Your task to perform on an android device: toggle pop-ups in chrome Image 0: 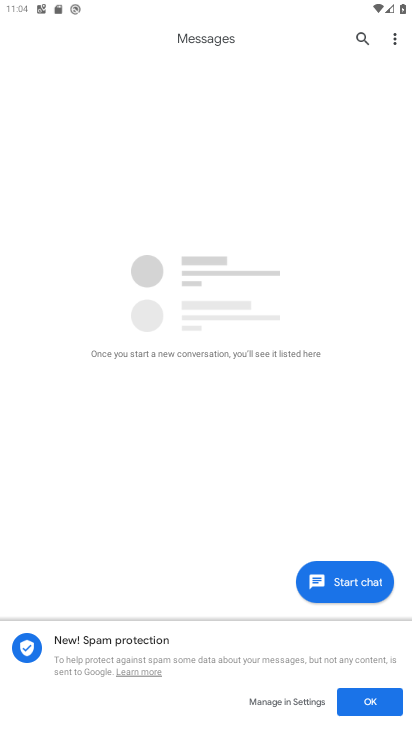
Step 0: press home button
Your task to perform on an android device: toggle pop-ups in chrome Image 1: 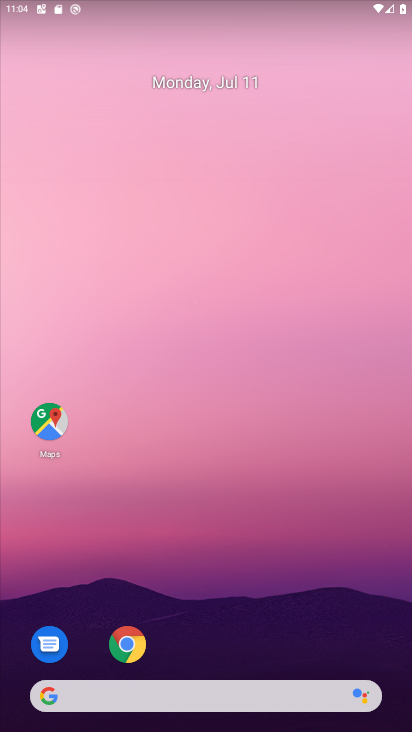
Step 1: click (129, 646)
Your task to perform on an android device: toggle pop-ups in chrome Image 2: 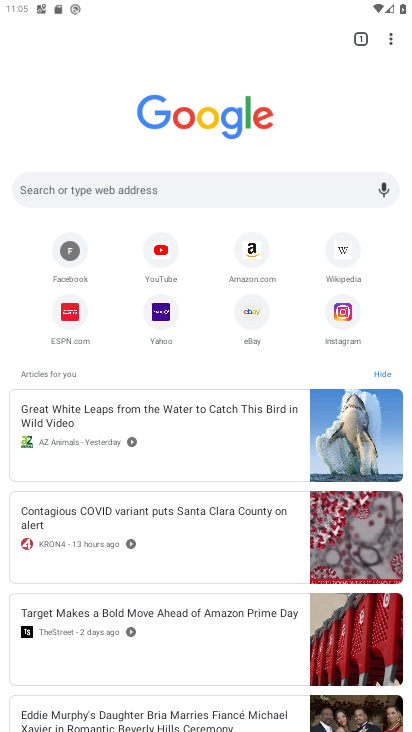
Step 2: click (387, 41)
Your task to perform on an android device: toggle pop-ups in chrome Image 3: 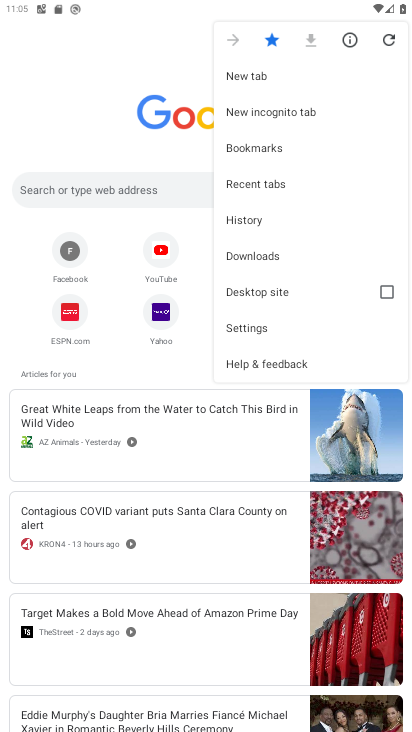
Step 3: click (259, 325)
Your task to perform on an android device: toggle pop-ups in chrome Image 4: 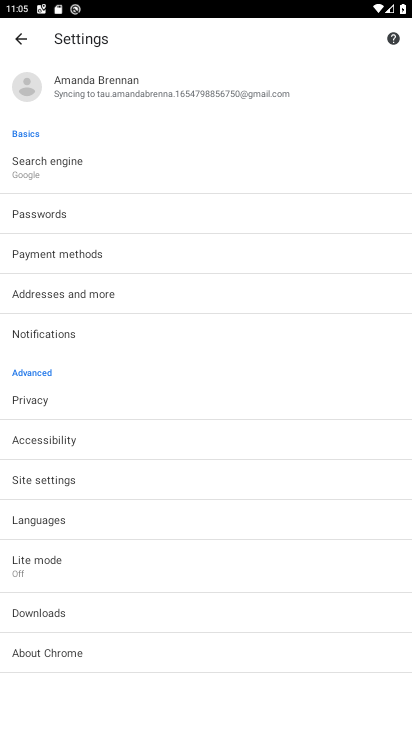
Step 4: click (87, 489)
Your task to perform on an android device: toggle pop-ups in chrome Image 5: 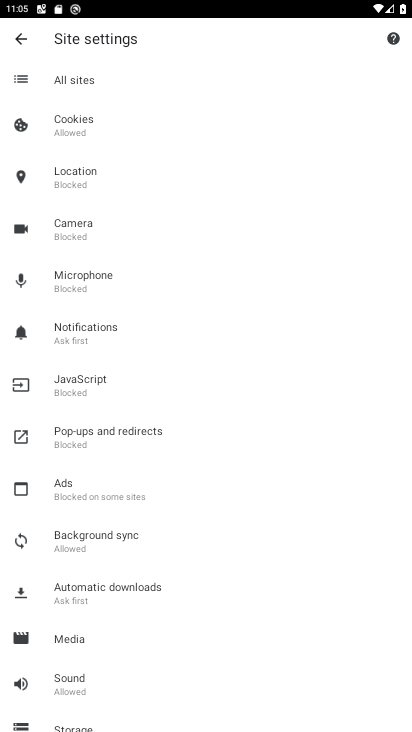
Step 5: click (122, 435)
Your task to perform on an android device: toggle pop-ups in chrome Image 6: 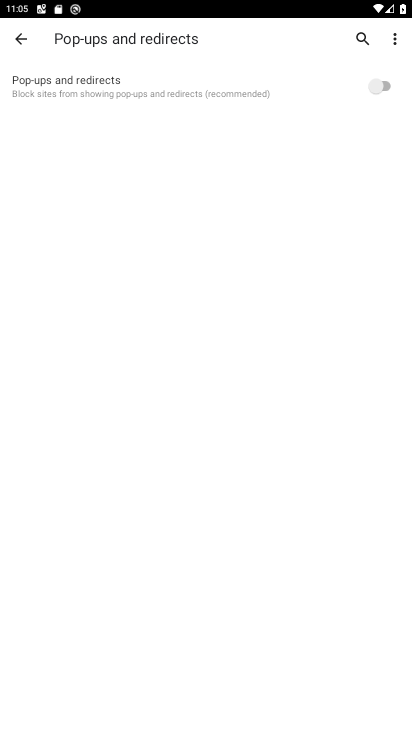
Step 6: click (382, 88)
Your task to perform on an android device: toggle pop-ups in chrome Image 7: 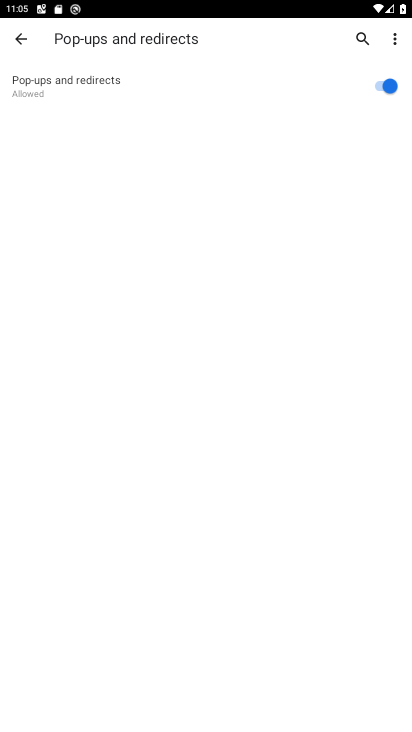
Step 7: task complete